Your task to perform on an android device: What is the news today? Image 0: 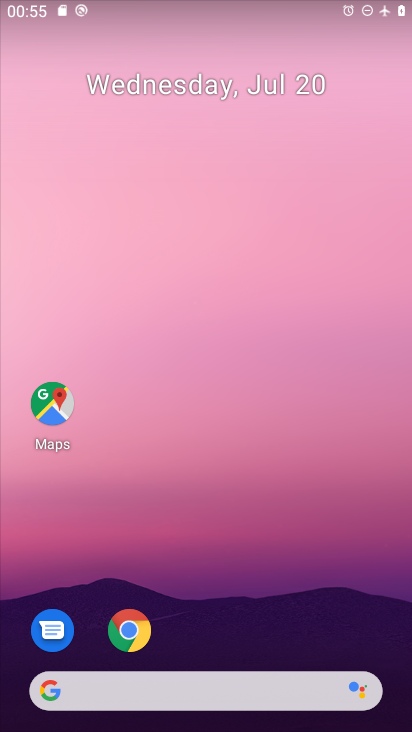
Step 0: drag from (244, 639) to (202, 142)
Your task to perform on an android device: What is the news today? Image 1: 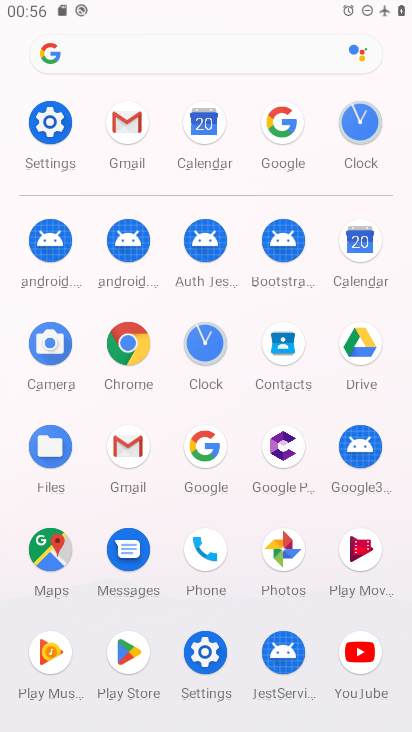
Step 1: click (210, 464)
Your task to perform on an android device: What is the news today? Image 2: 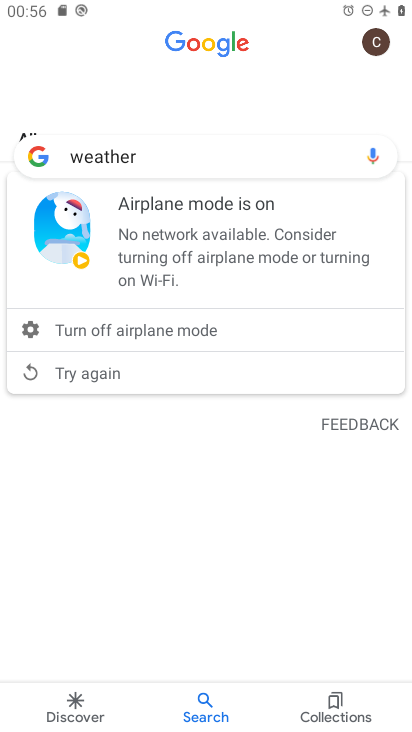
Step 2: click (152, 160)
Your task to perform on an android device: What is the news today? Image 3: 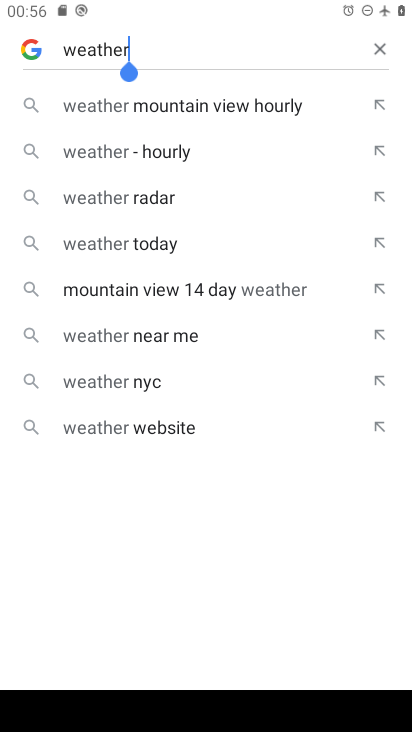
Step 3: click (373, 49)
Your task to perform on an android device: What is the news today? Image 4: 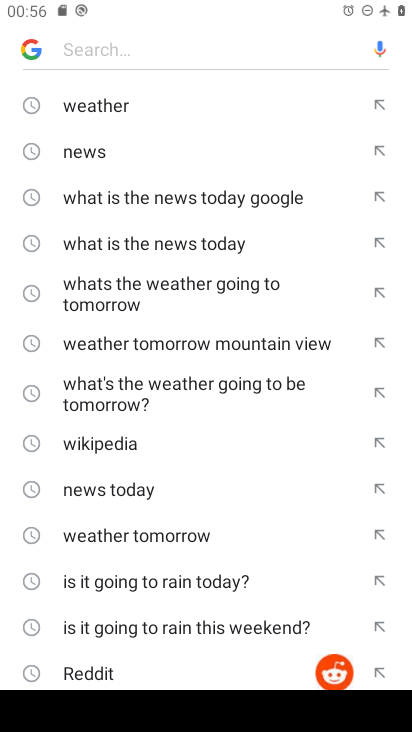
Step 4: click (116, 152)
Your task to perform on an android device: What is the news today? Image 5: 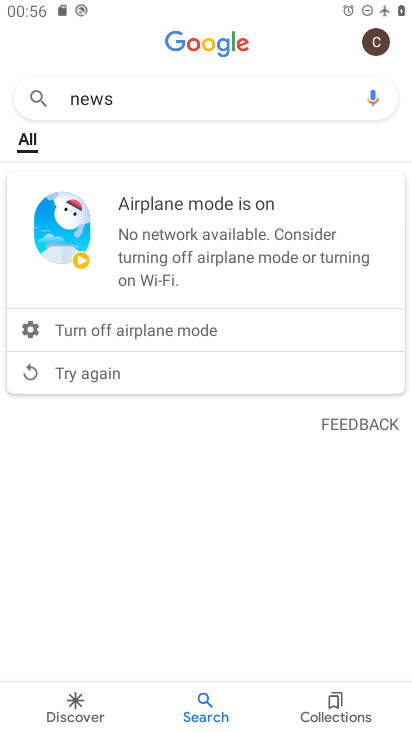
Step 5: task complete